Your task to perform on an android device: Open calendar and show me the third week of next month Image 0: 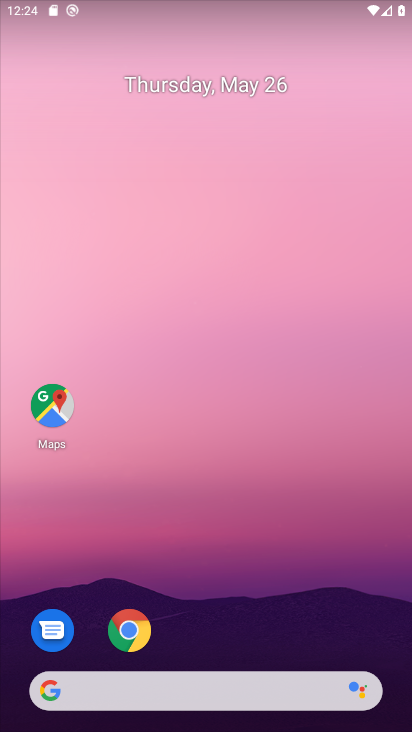
Step 0: click (233, 49)
Your task to perform on an android device: Open calendar and show me the third week of next month Image 1: 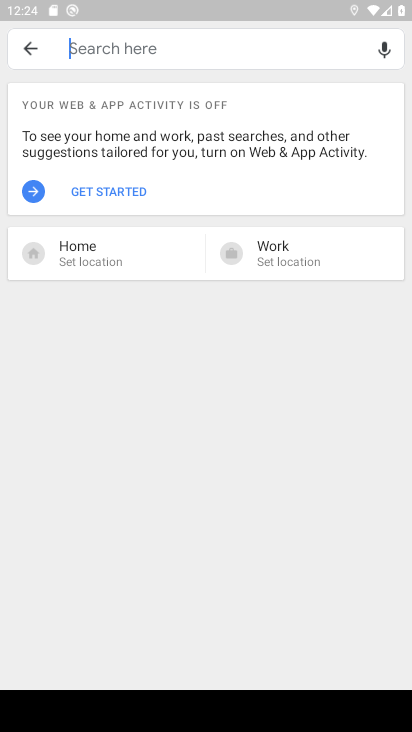
Step 1: press home button
Your task to perform on an android device: Open calendar and show me the third week of next month Image 2: 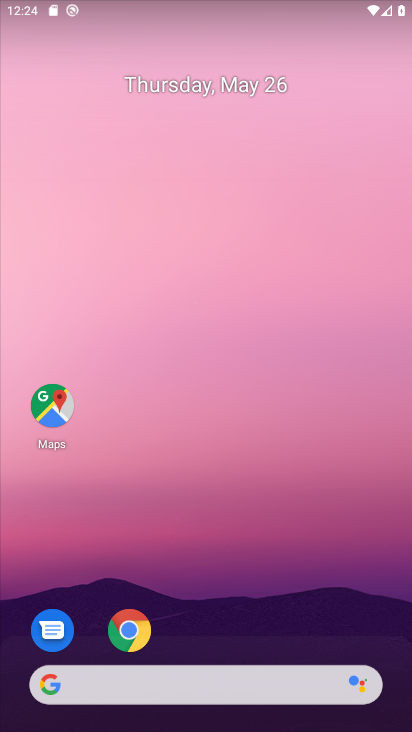
Step 2: drag from (221, 650) to (227, 6)
Your task to perform on an android device: Open calendar and show me the third week of next month Image 3: 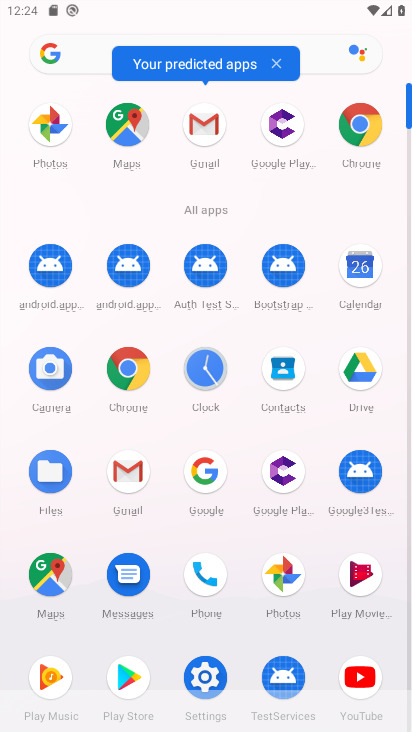
Step 3: click (364, 261)
Your task to perform on an android device: Open calendar and show me the third week of next month Image 4: 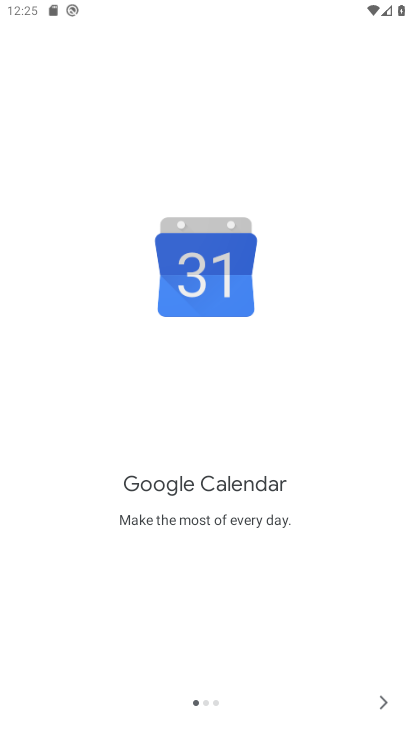
Step 4: click (381, 698)
Your task to perform on an android device: Open calendar and show me the third week of next month Image 5: 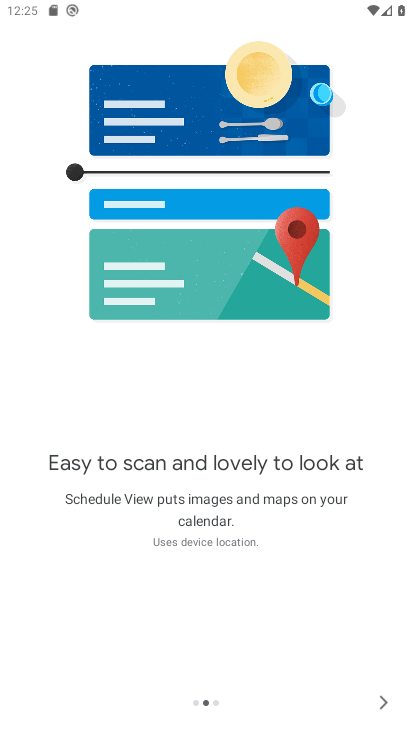
Step 5: click (382, 697)
Your task to perform on an android device: Open calendar and show me the third week of next month Image 6: 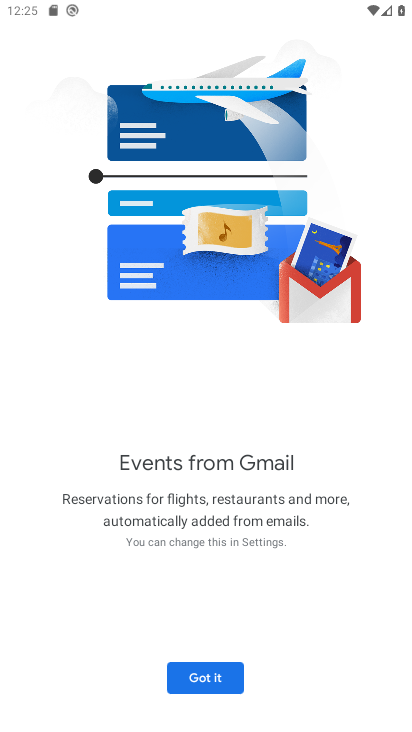
Step 6: click (210, 673)
Your task to perform on an android device: Open calendar and show me the third week of next month Image 7: 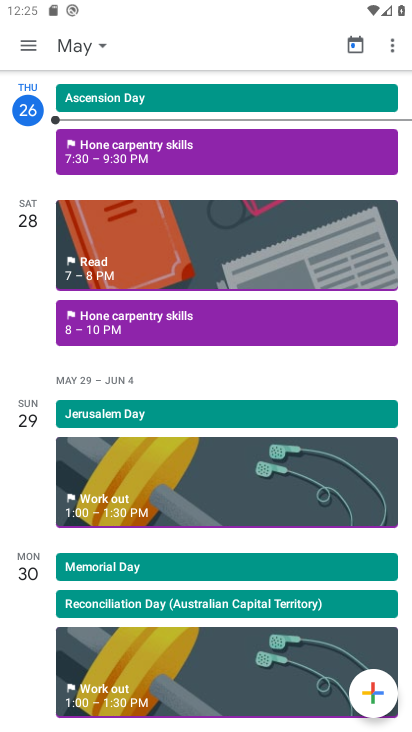
Step 7: click (102, 42)
Your task to perform on an android device: Open calendar and show me the third week of next month Image 8: 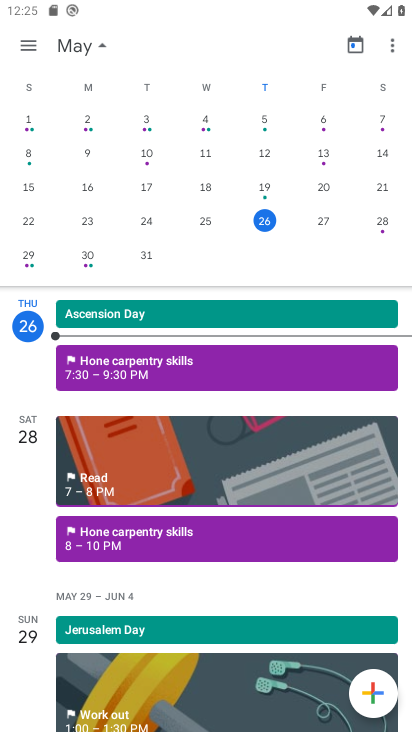
Step 8: drag from (352, 185) to (25, 177)
Your task to perform on an android device: Open calendar and show me the third week of next month Image 9: 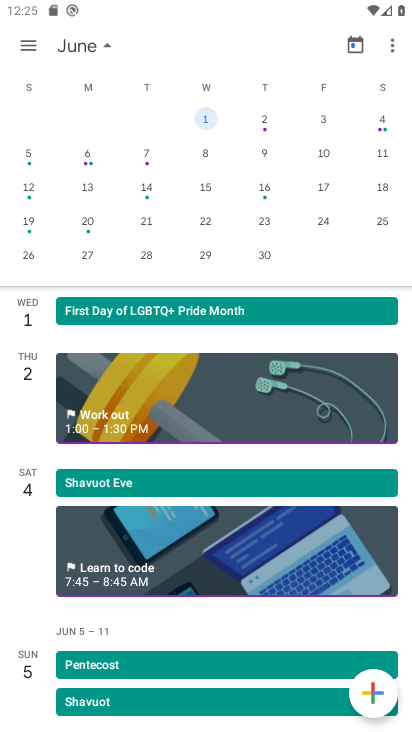
Step 9: click (31, 188)
Your task to perform on an android device: Open calendar and show me the third week of next month Image 10: 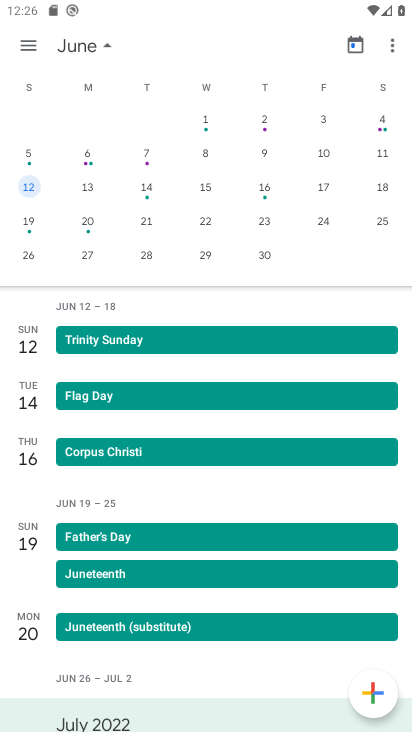
Step 10: click (104, 42)
Your task to perform on an android device: Open calendar and show me the third week of next month Image 11: 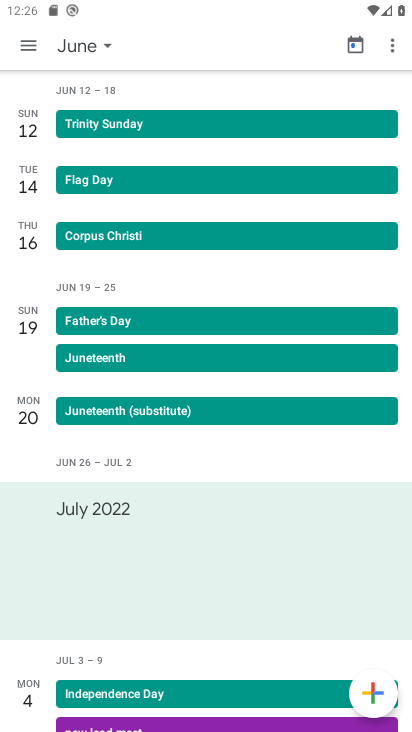
Step 11: task complete